Your task to perform on an android device: turn on javascript in the chrome app Image 0: 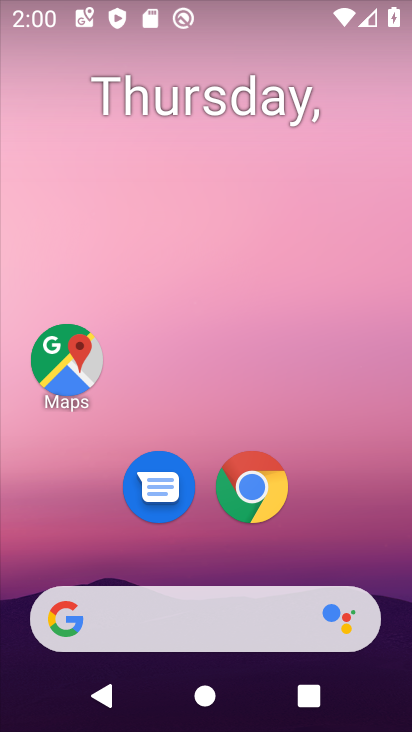
Step 0: click (255, 482)
Your task to perform on an android device: turn on javascript in the chrome app Image 1: 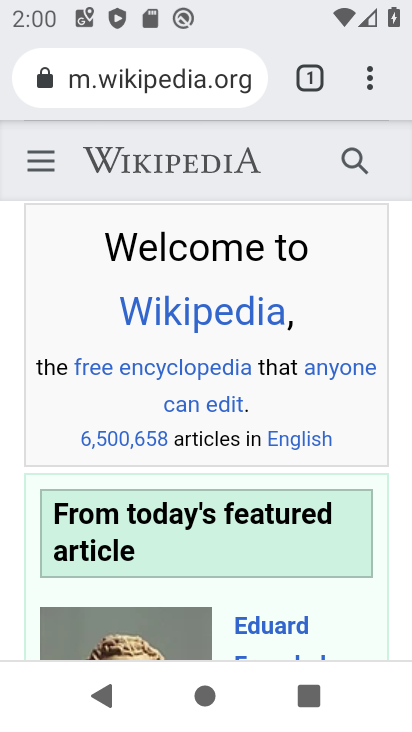
Step 1: click (370, 81)
Your task to perform on an android device: turn on javascript in the chrome app Image 2: 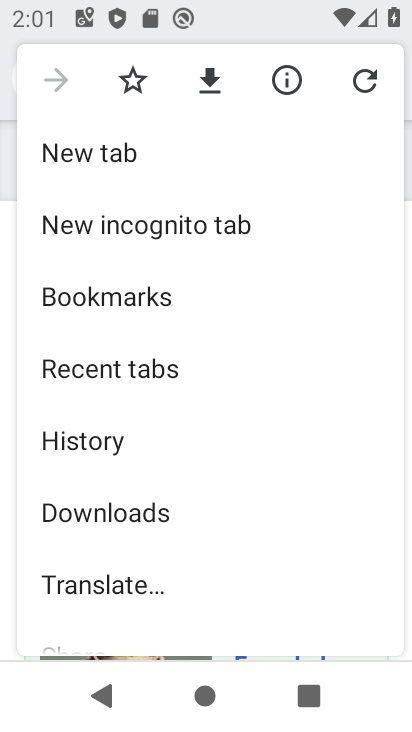
Step 2: drag from (120, 600) to (195, 299)
Your task to perform on an android device: turn on javascript in the chrome app Image 3: 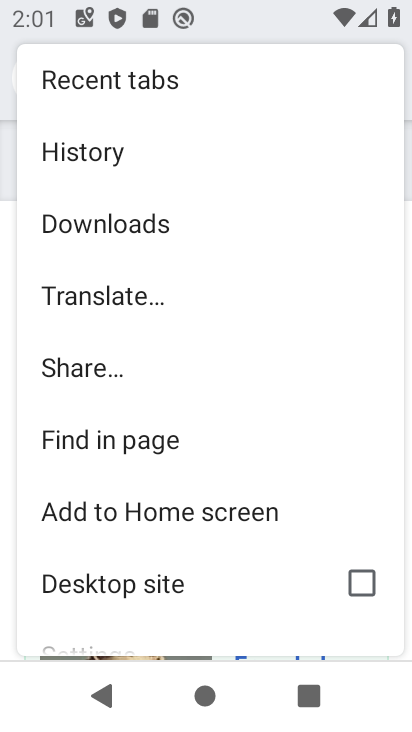
Step 3: drag from (244, 622) to (324, 324)
Your task to perform on an android device: turn on javascript in the chrome app Image 4: 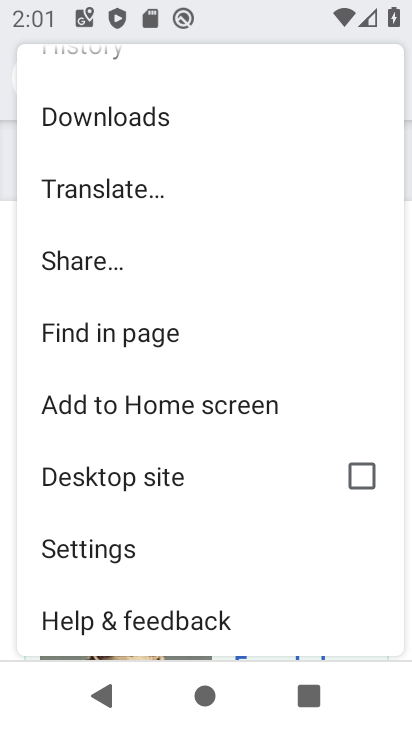
Step 4: click (186, 557)
Your task to perform on an android device: turn on javascript in the chrome app Image 5: 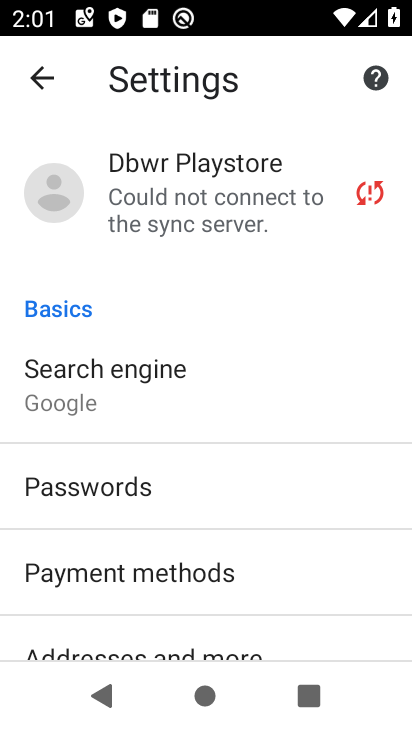
Step 5: drag from (207, 621) to (242, 318)
Your task to perform on an android device: turn on javascript in the chrome app Image 6: 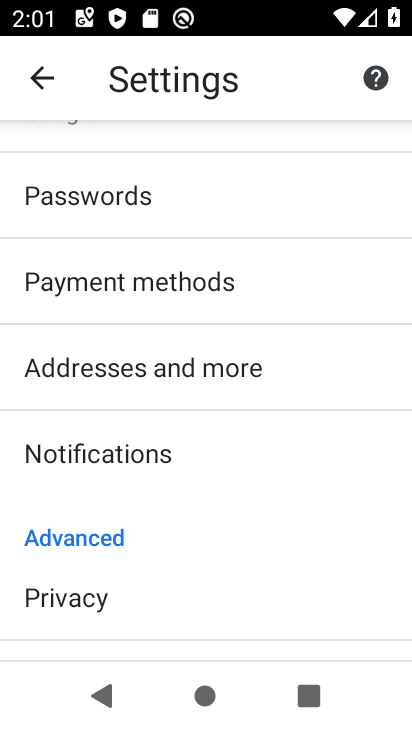
Step 6: drag from (196, 569) to (257, 238)
Your task to perform on an android device: turn on javascript in the chrome app Image 7: 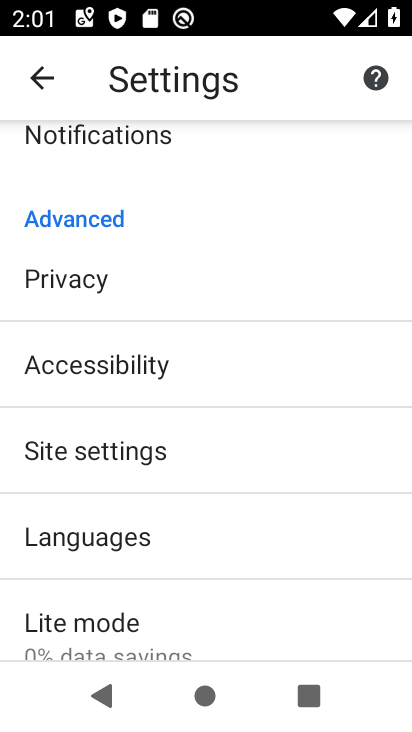
Step 7: click (139, 448)
Your task to perform on an android device: turn on javascript in the chrome app Image 8: 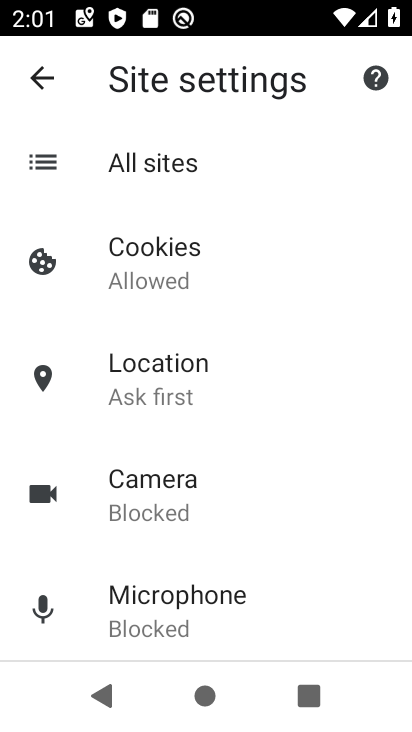
Step 8: drag from (178, 611) to (211, 383)
Your task to perform on an android device: turn on javascript in the chrome app Image 9: 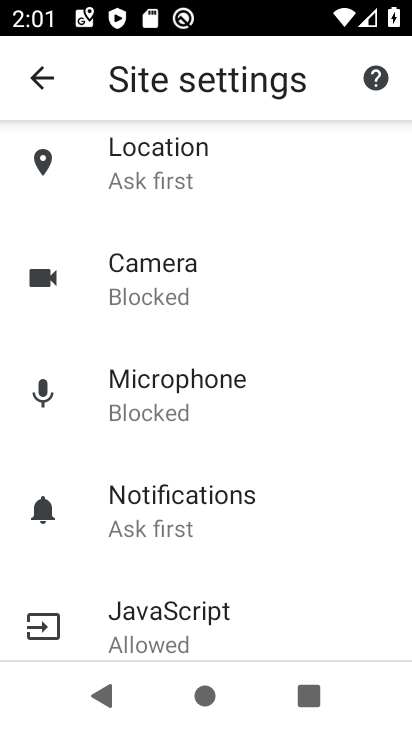
Step 9: click (152, 610)
Your task to perform on an android device: turn on javascript in the chrome app Image 10: 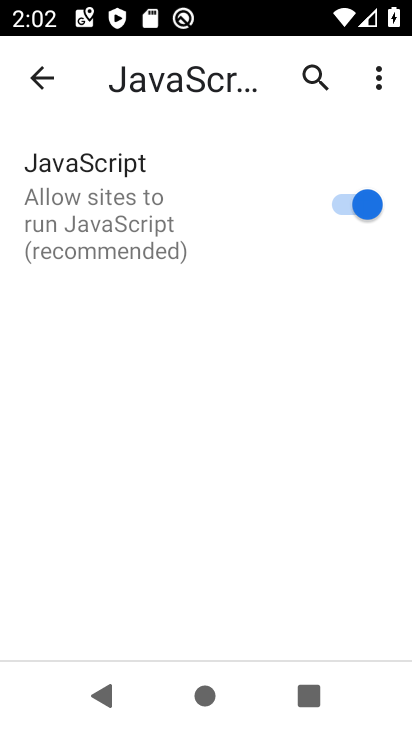
Step 10: task complete